Your task to perform on an android device: Open the web browser Image 0: 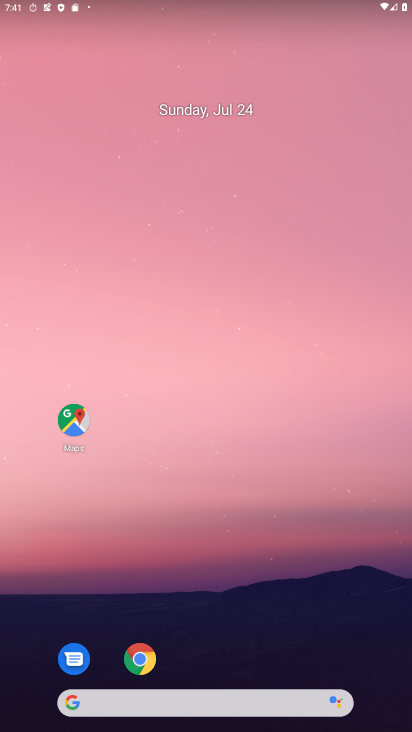
Step 0: drag from (225, 694) to (315, 122)
Your task to perform on an android device: Open the web browser Image 1: 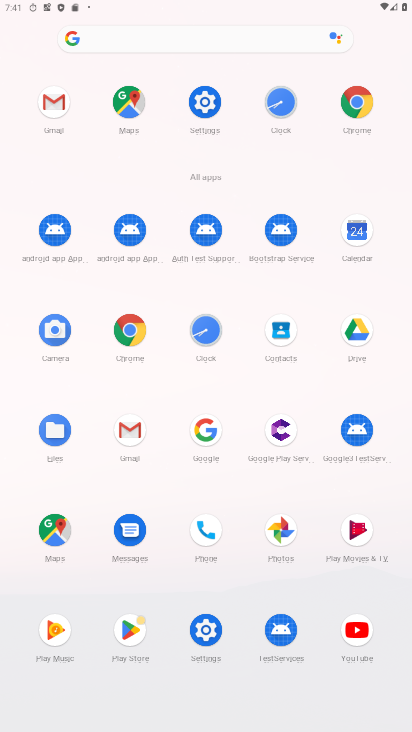
Step 1: click (131, 331)
Your task to perform on an android device: Open the web browser Image 2: 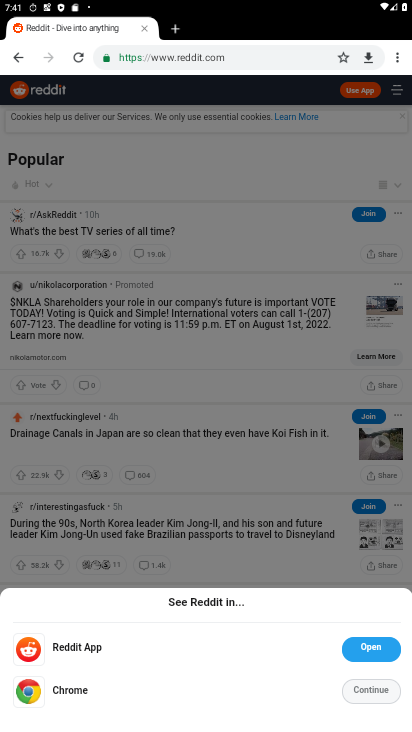
Step 2: task complete